Your task to perform on an android device: turn on improve location accuracy Image 0: 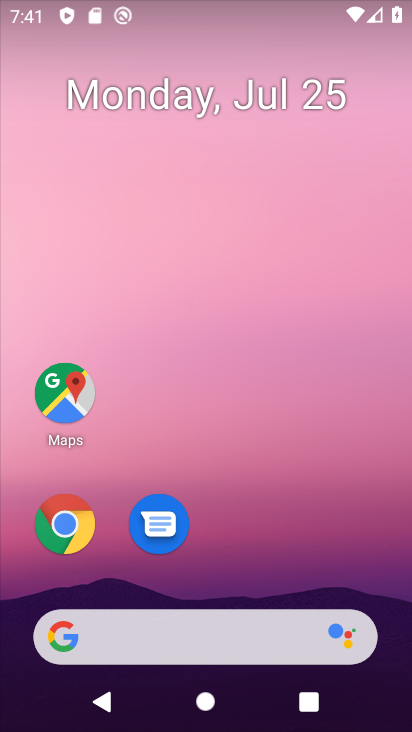
Step 0: drag from (274, 572) to (298, 33)
Your task to perform on an android device: turn on improve location accuracy Image 1: 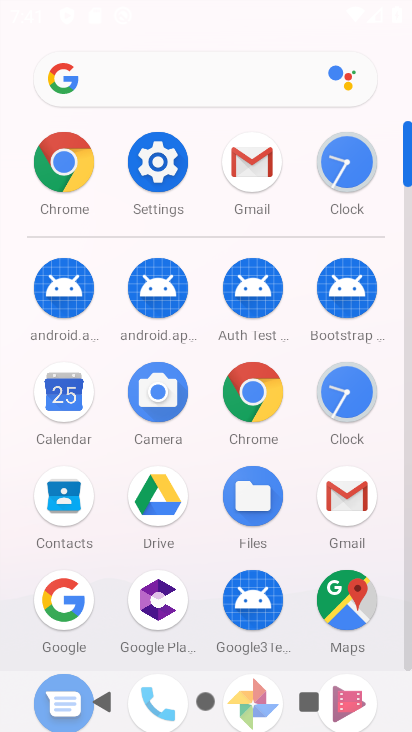
Step 1: click (161, 154)
Your task to perform on an android device: turn on improve location accuracy Image 2: 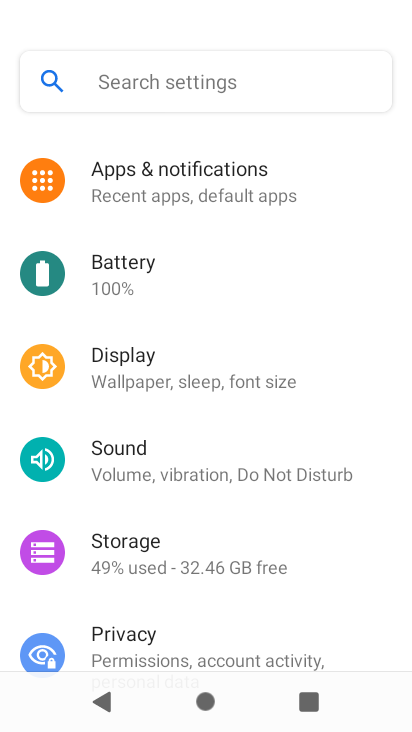
Step 2: drag from (190, 520) to (252, 130)
Your task to perform on an android device: turn on improve location accuracy Image 3: 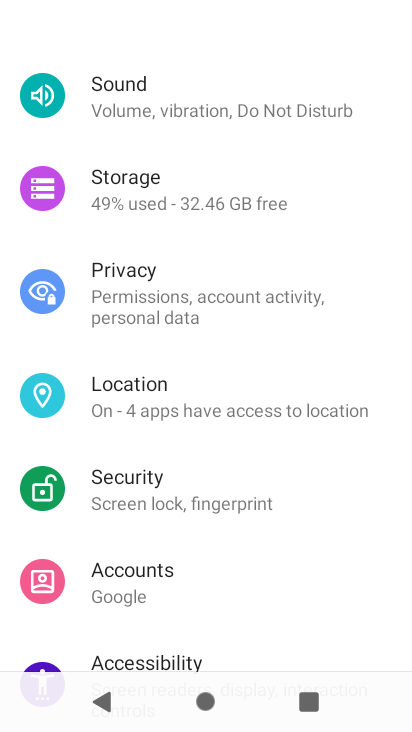
Step 3: click (160, 397)
Your task to perform on an android device: turn on improve location accuracy Image 4: 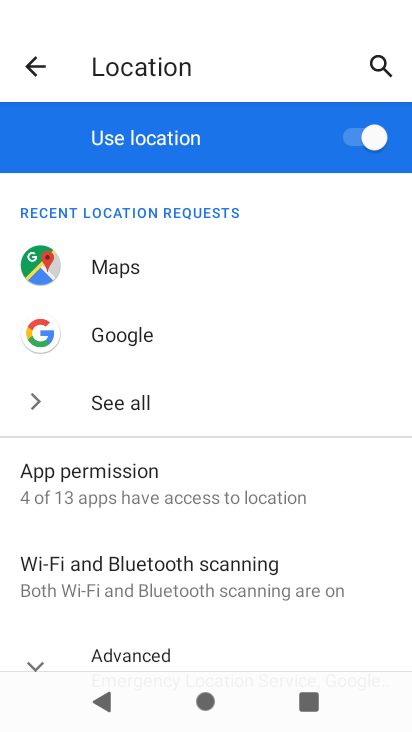
Step 4: drag from (106, 617) to (191, 244)
Your task to perform on an android device: turn on improve location accuracy Image 5: 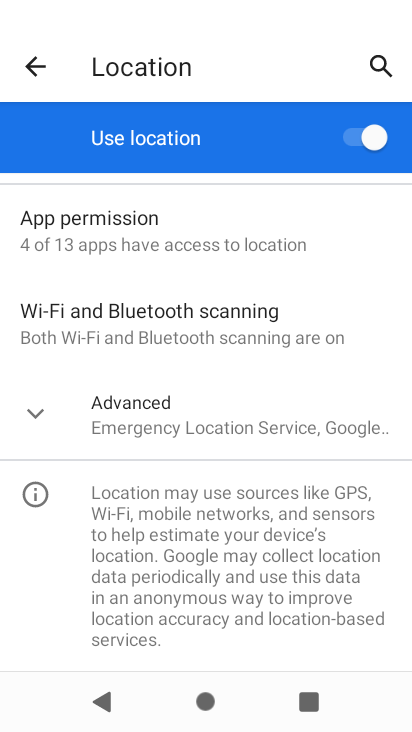
Step 5: click (36, 416)
Your task to perform on an android device: turn on improve location accuracy Image 6: 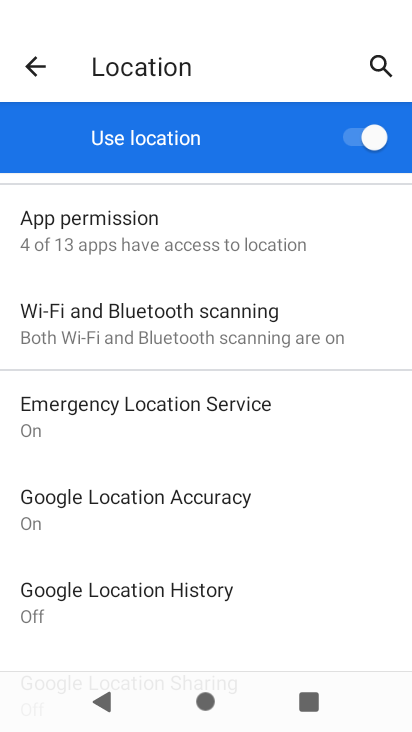
Step 6: click (141, 511)
Your task to perform on an android device: turn on improve location accuracy Image 7: 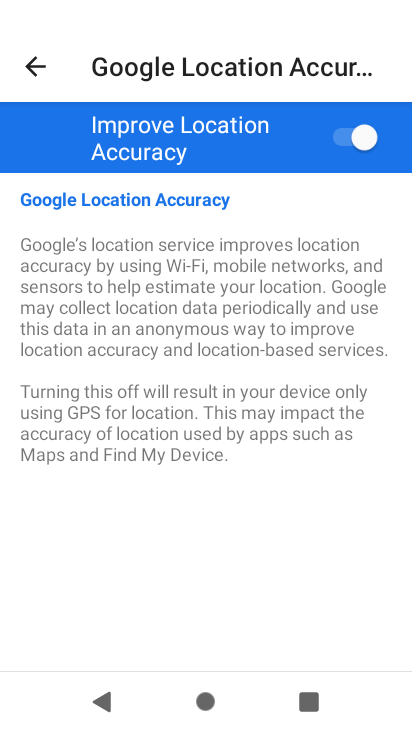
Step 7: task complete